Your task to perform on an android device: turn on sleep mode Image 0: 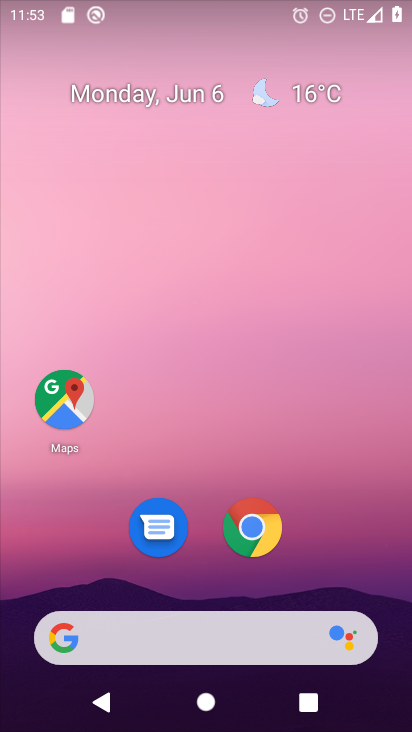
Step 0: drag from (379, 561) to (361, 132)
Your task to perform on an android device: turn on sleep mode Image 1: 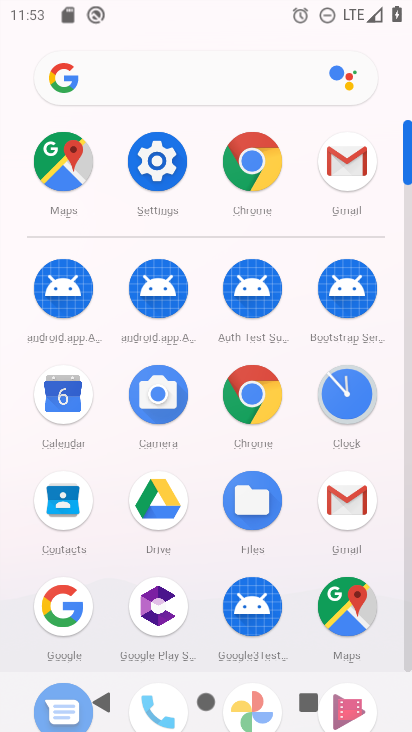
Step 1: click (162, 176)
Your task to perform on an android device: turn on sleep mode Image 2: 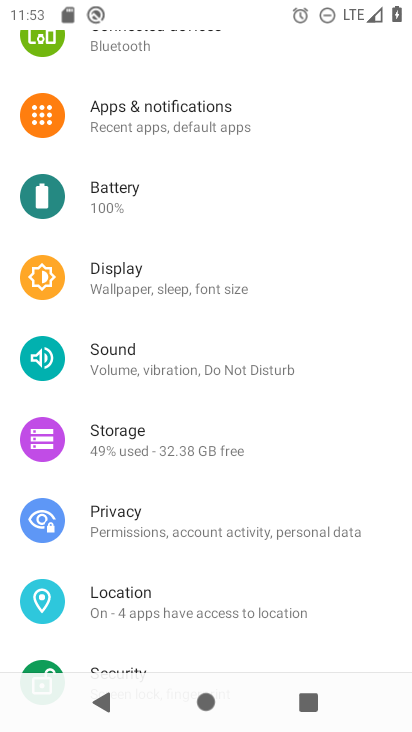
Step 2: drag from (336, 228) to (327, 401)
Your task to perform on an android device: turn on sleep mode Image 3: 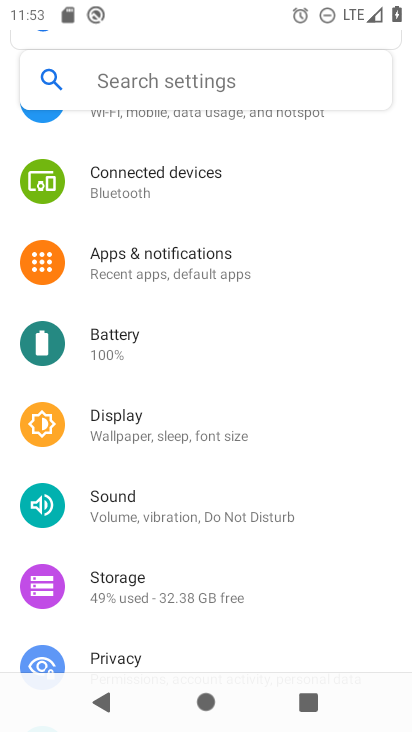
Step 3: drag from (327, 194) to (333, 362)
Your task to perform on an android device: turn on sleep mode Image 4: 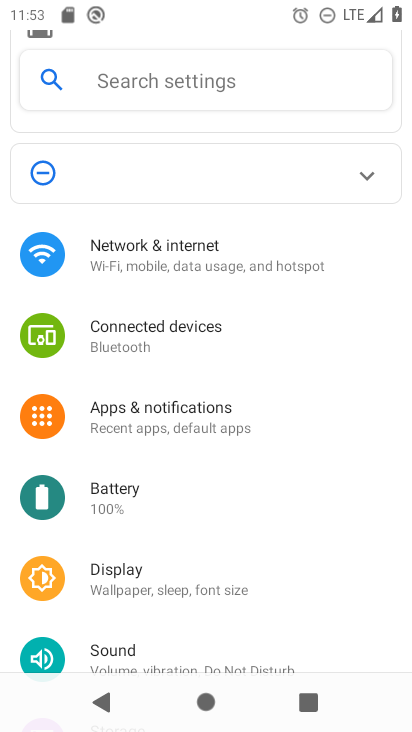
Step 4: drag from (355, 240) to (345, 434)
Your task to perform on an android device: turn on sleep mode Image 5: 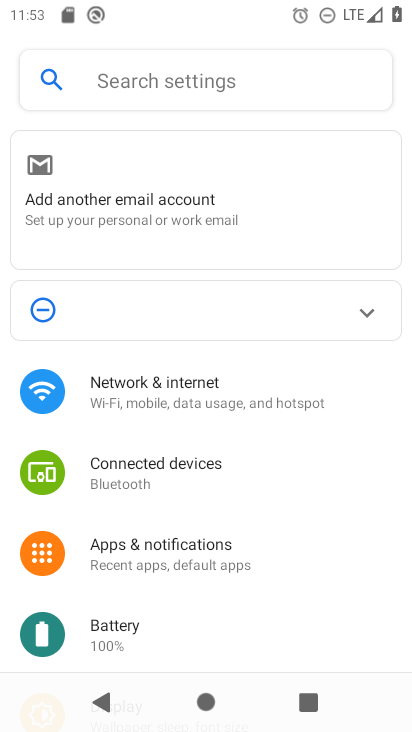
Step 5: drag from (309, 176) to (312, 390)
Your task to perform on an android device: turn on sleep mode Image 6: 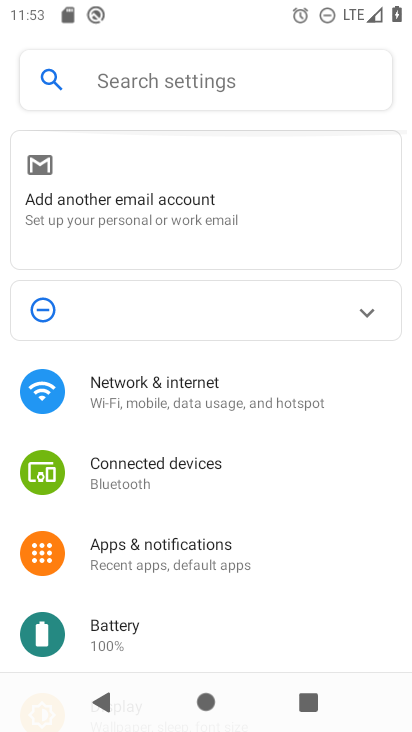
Step 6: drag from (324, 462) to (324, 355)
Your task to perform on an android device: turn on sleep mode Image 7: 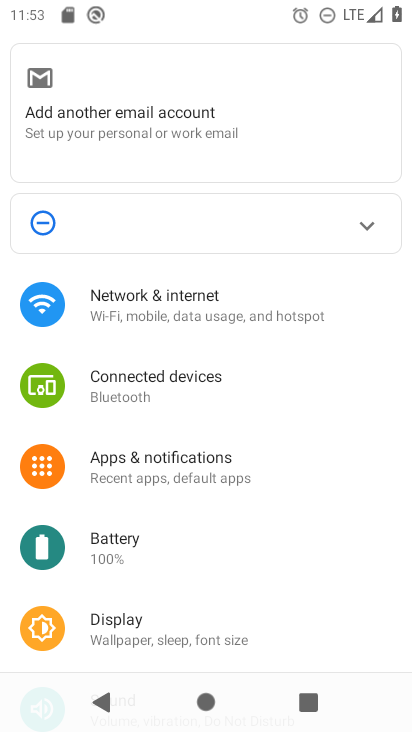
Step 7: drag from (323, 417) to (322, 326)
Your task to perform on an android device: turn on sleep mode Image 8: 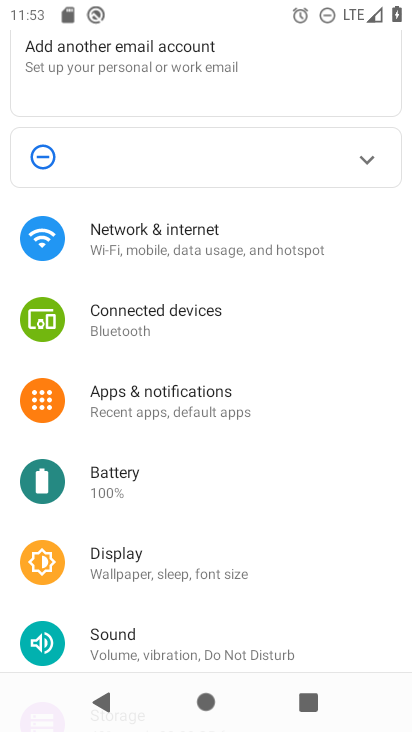
Step 8: drag from (310, 407) to (310, 247)
Your task to perform on an android device: turn on sleep mode Image 9: 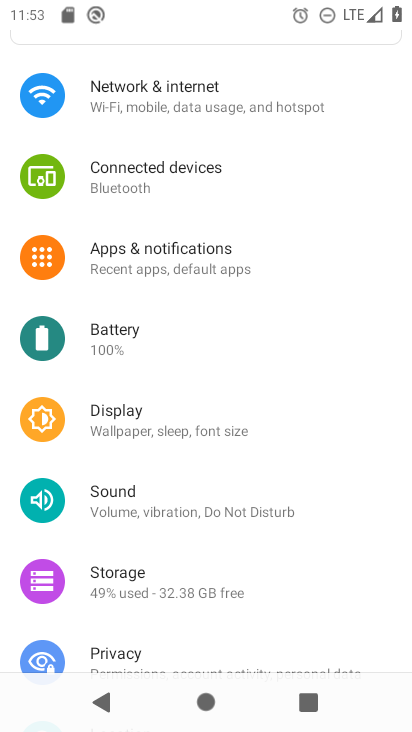
Step 9: drag from (332, 375) to (329, 243)
Your task to perform on an android device: turn on sleep mode Image 10: 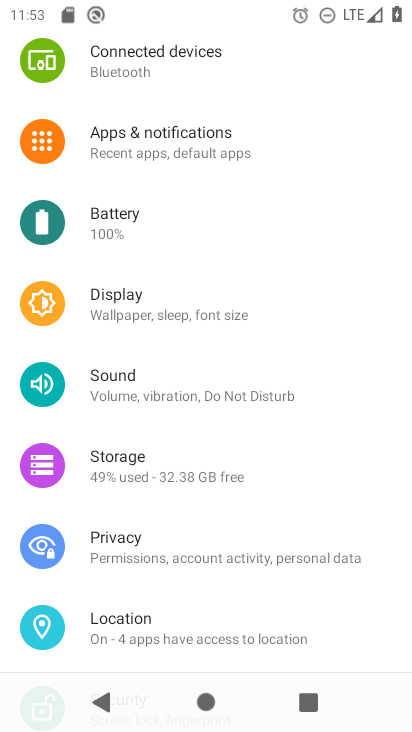
Step 10: click (241, 305)
Your task to perform on an android device: turn on sleep mode Image 11: 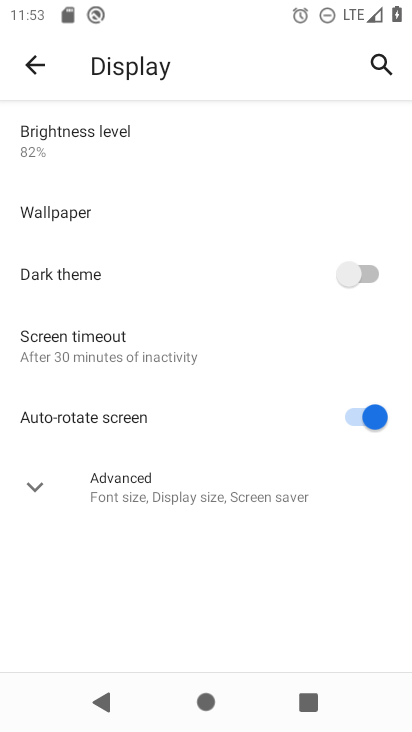
Step 11: click (192, 481)
Your task to perform on an android device: turn on sleep mode Image 12: 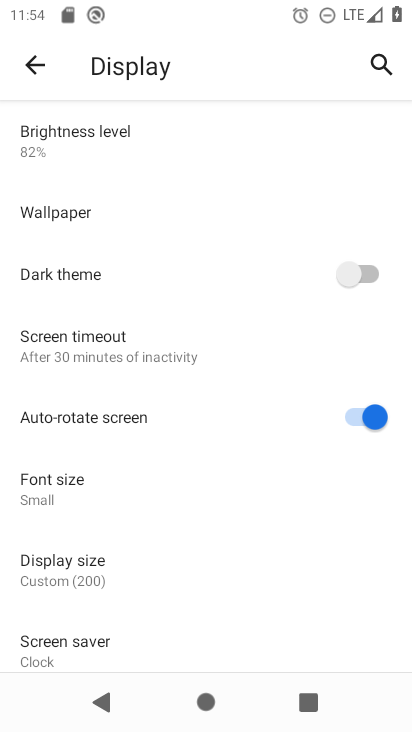
Step 12: task complete